Your task to perform on an android device: change alarm snooze length Image 0: 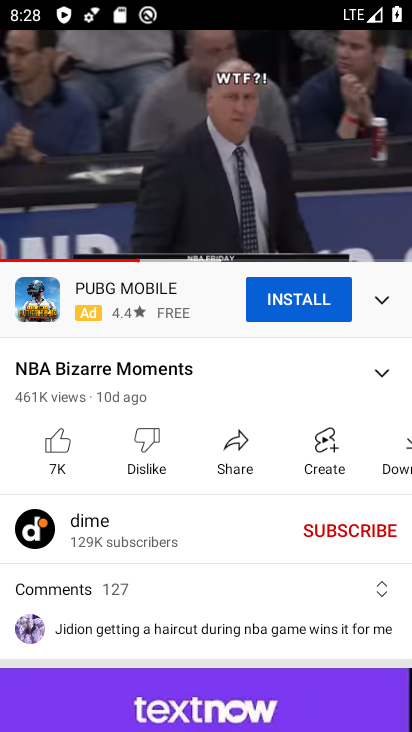
Step 0: click (200, 137)
Your task to perform on an android device: change alarm snooze length Image 1: 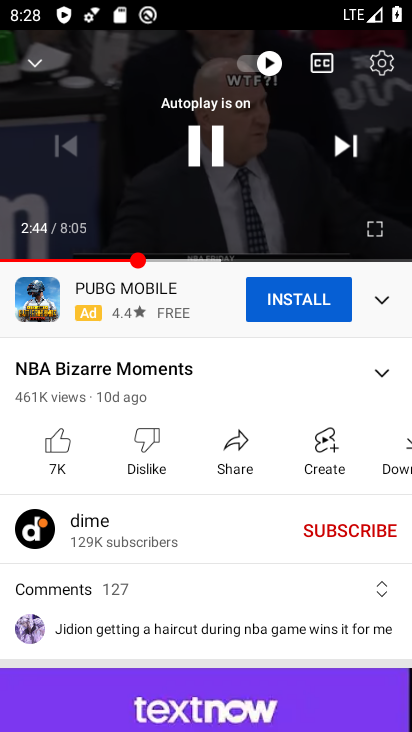
Step 1: click (200, 137)
Your task to perform on an android device: change alarm snooze length Image 2: 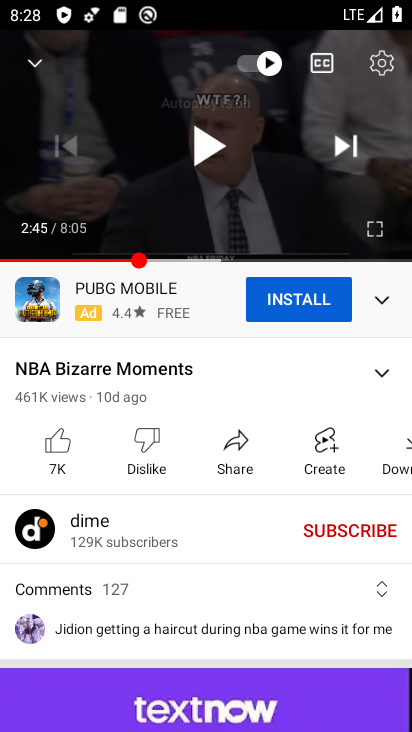
Step 2: press home button
Your task to perform on an android device: change alarm snooze length Image 3: 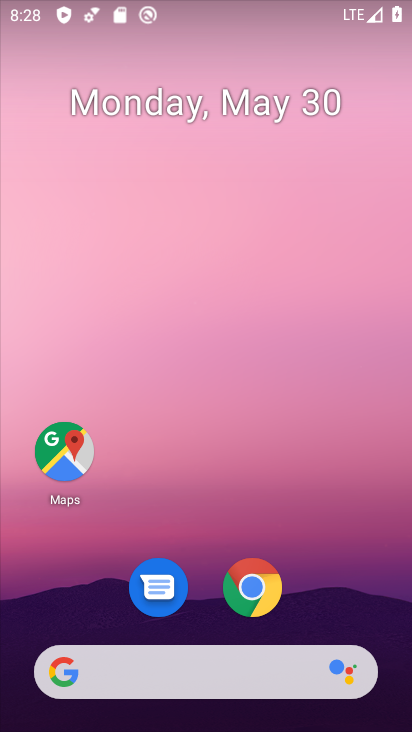
Step 3: drag from (223, 575) to (253, 113)
Your task to perform on an android device: change alarm snooze length Image 4: 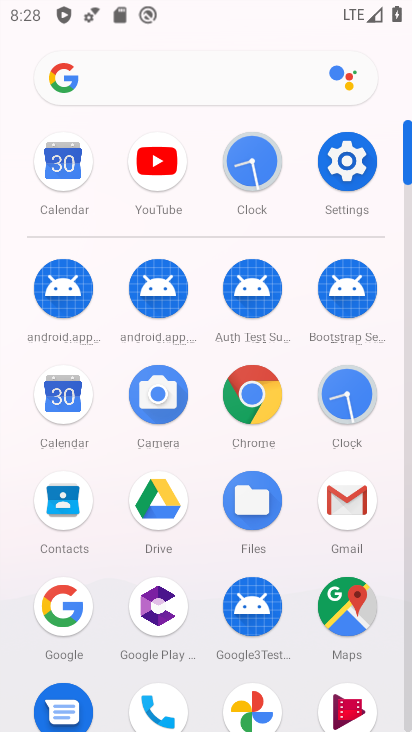
Step 4: click (342, 384)
Your task to perform on an android device: change alarm snooze length Image 5: 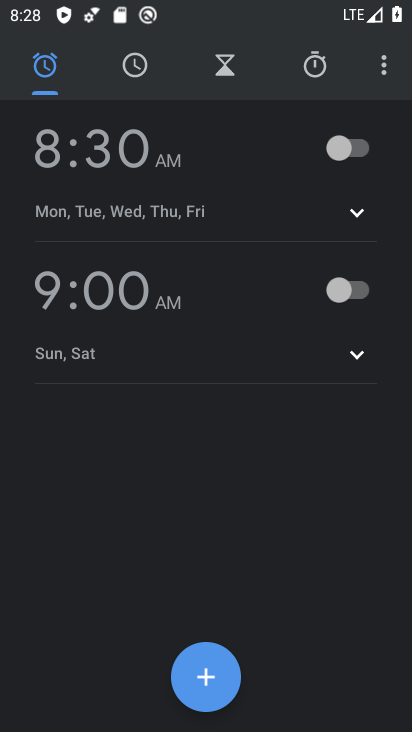
Step 5: click (381, 65)
Your task to perform on an android device: change alarm snooze length Image 6: 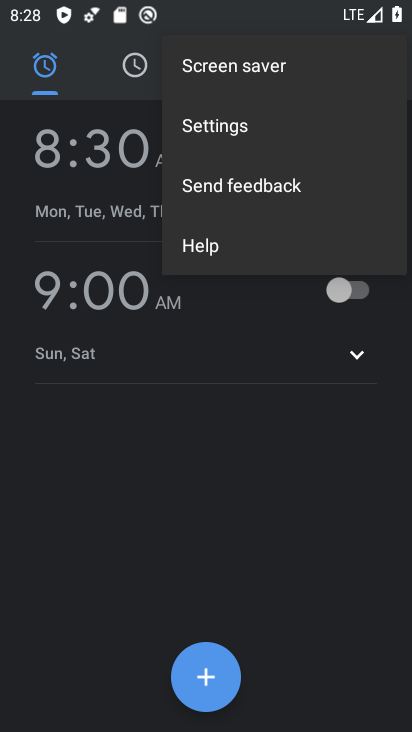
Step 6: click (274, 131)
Your task to perform on an android device: change alarm snooze length Image 7: 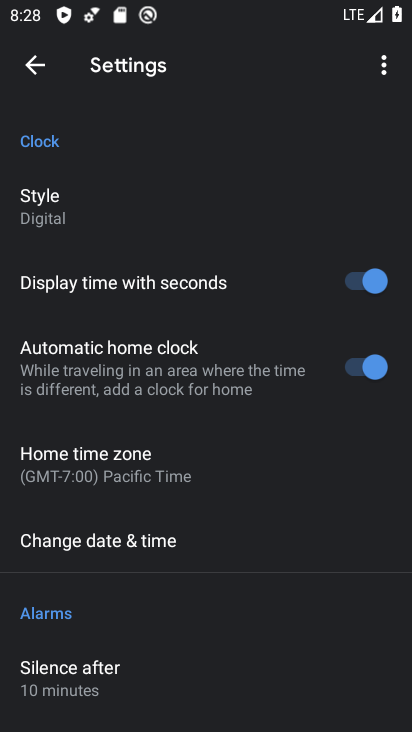
Step 7: click (109, 684)
Your task to perform on an android device: change alarm snooze length Image 8: 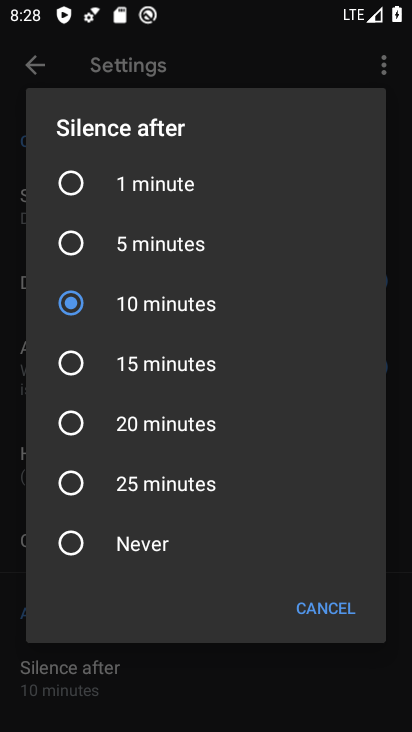
Step 8: click (72, 366)
Your task to perform on an android device: change alarm snooze length Image 9: 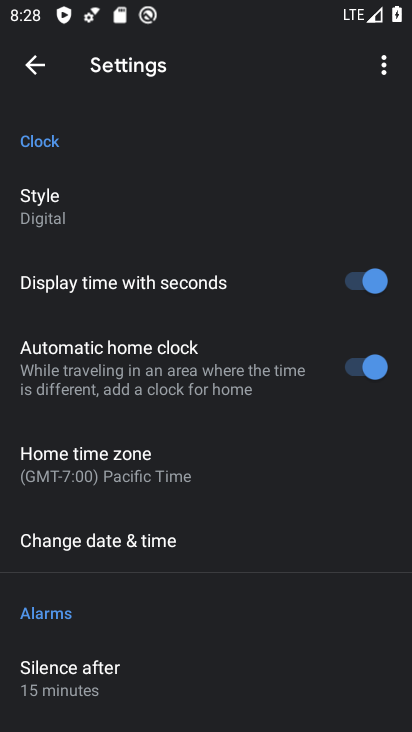
Step 9: task complete